Your task to perform on an android device: Open ESPN.com Image 0: 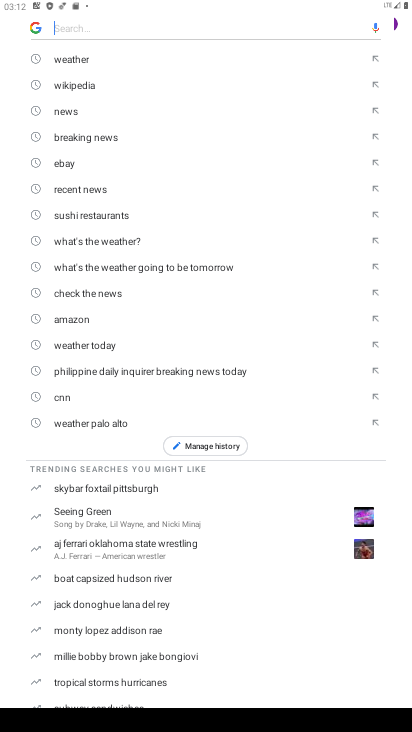
Step 0: type "espn.com"
Your task to perform on an android device: Open ESPN.com Image 1: 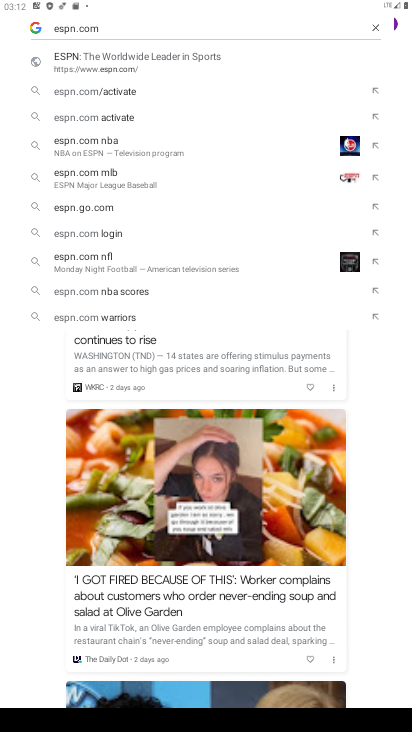
Step 1: click (93, 74)
Your task to perform on an android device: Open ESPN.com Image 2: 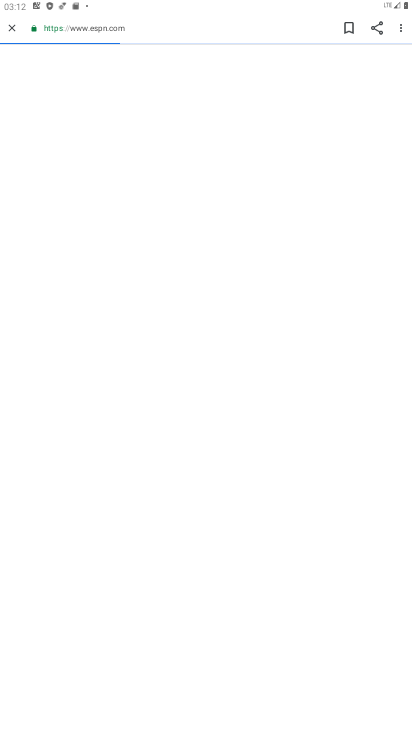
Step 2: task complete